Your task to perform on an android device: Open the map Image 0: 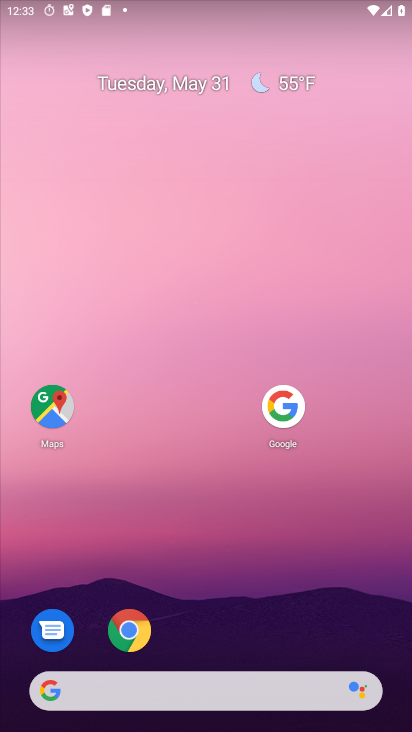
Step 0: click (59, 419)
Your task to perform on an android device: Open the map Image 1: 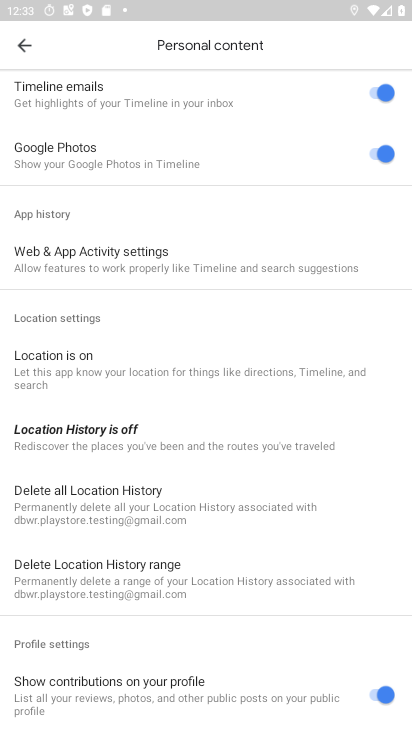
Step 1: click (27, 44)
Your task to perform on an android device: Open the map Image 2: 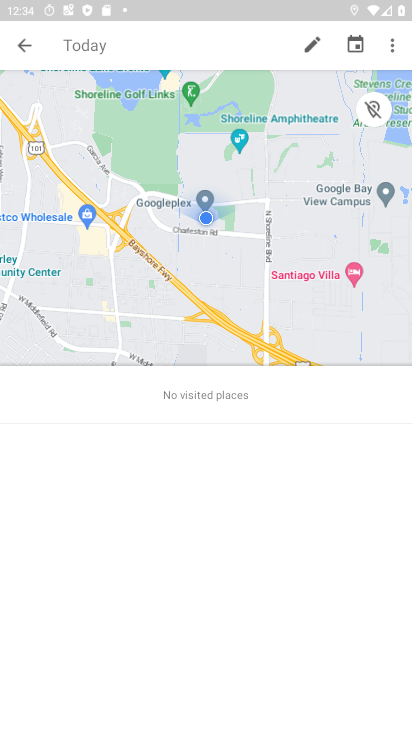
Step 2: task complete